Your task to perform on an android device: Turn on the flashlight Image 0: 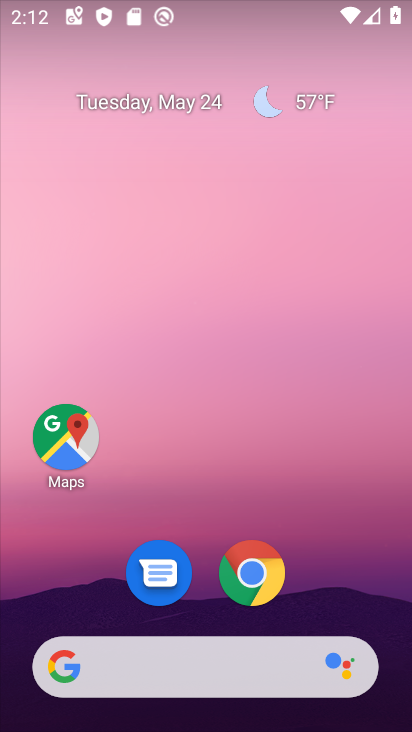
Step 0: drag from (365, 15) to (345, 214)
Your task to perform on an android device: Turn on the flashlight Image 1: 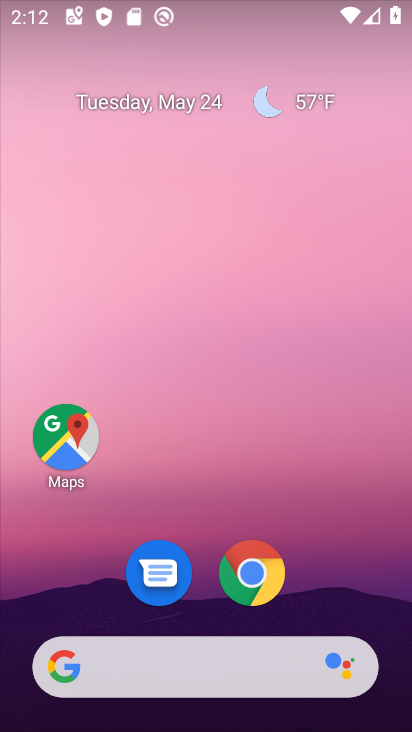
Step 1: drag from (358, 7) to (202, 579)
Your task to perform on an android device: Turn on the flashlight Image 2: 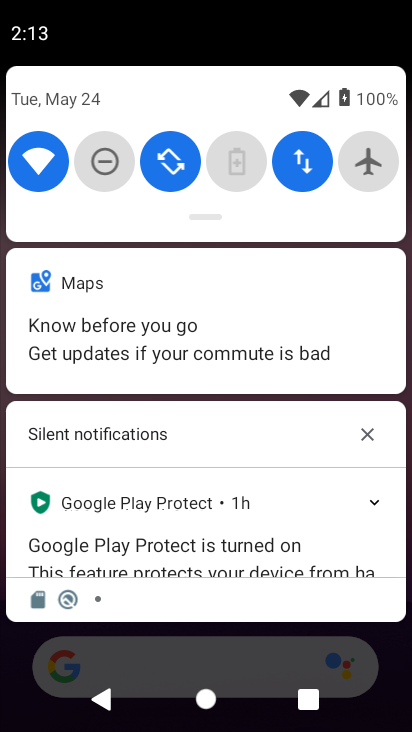
Step 2: drag from (211, 213) to (154, 404)
Your task to perform on an android device: Turn on the flashlight Image 3: 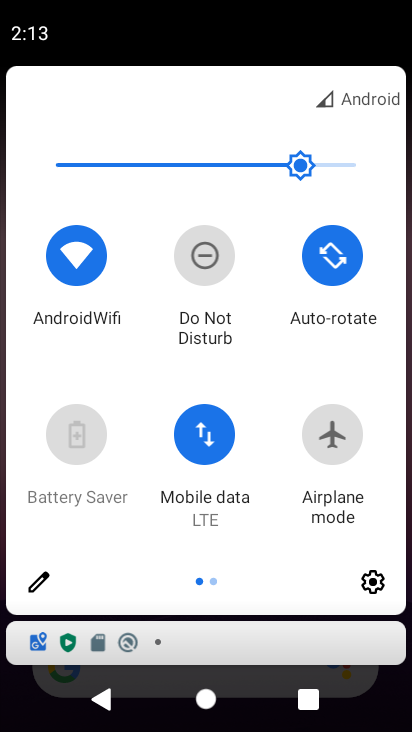
Step 3: click (40, 576)
Your task to perform on an android device: Turn on the flashlight Image 4: 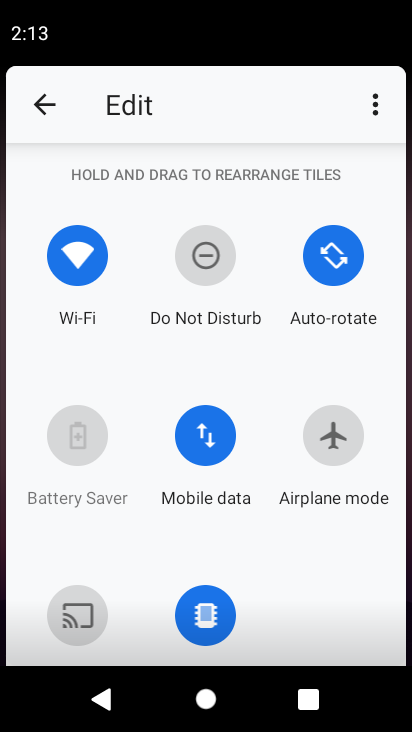
Step 4: task complete